Your task to perform on an android device: Open calendar and show me the second week of next month Image 0: 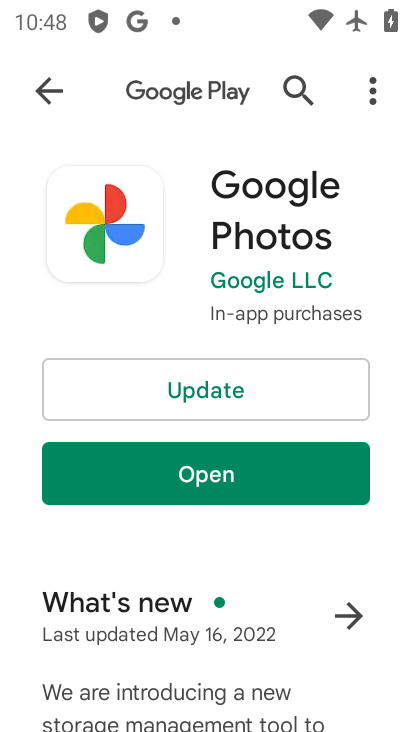
Step 0: press home button
Your task to perform on an android device: Open calendar and show me the second week of next month Image 1: 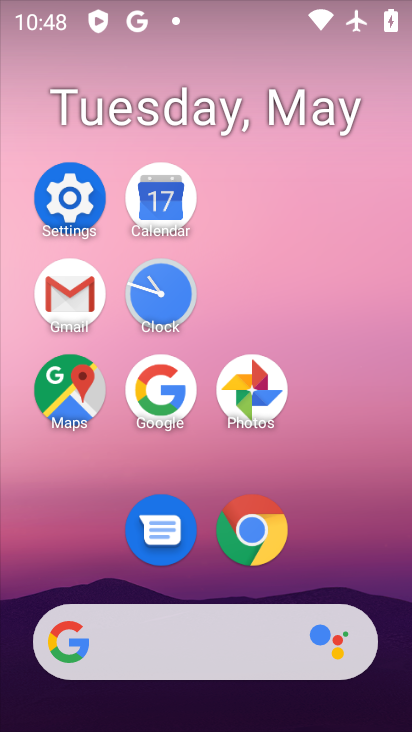
Step 1: click (148, 208)
Your task to perform on an android device: Open calendar and show me the second week of next month Image 2: 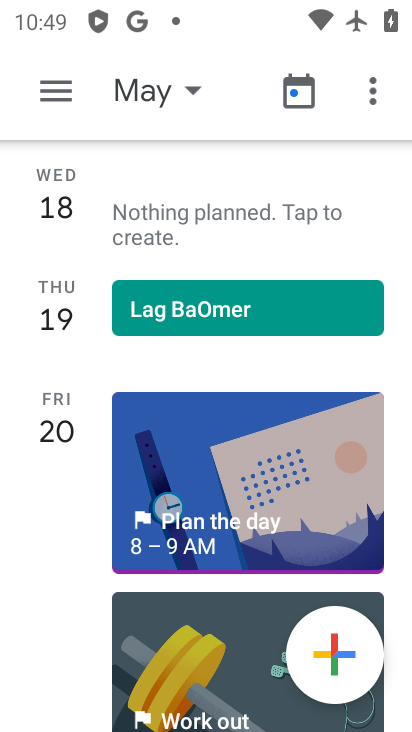
Step 2: click (156, 94)
Your task to perform on an android device: Open calendar and show me the second week of next month Image 3: 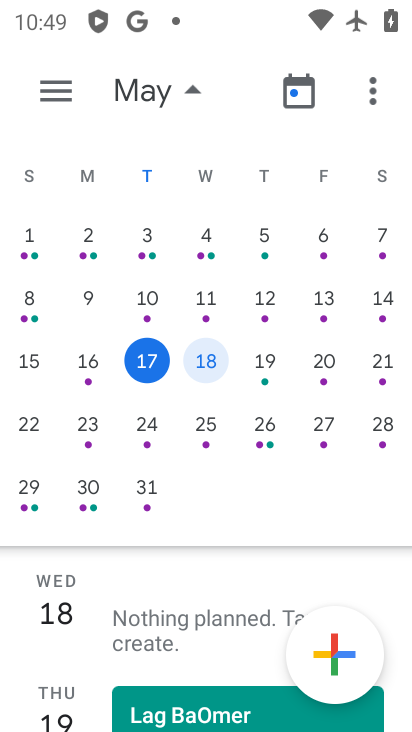
Step 3: drag from (397, 330) to (0, 277)
Your task to perform on an android device: Open calendar and show me the second week of next month Image 4: 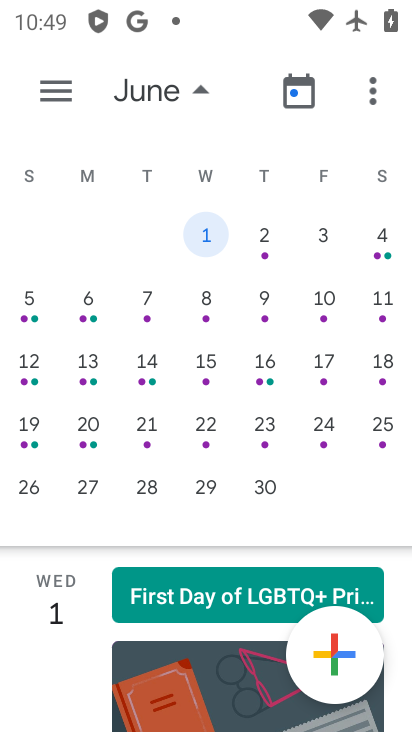
Step 4: click (75, 99)
Your task to perform on an android device: Open calendar and show me the second week of next month Image 5: 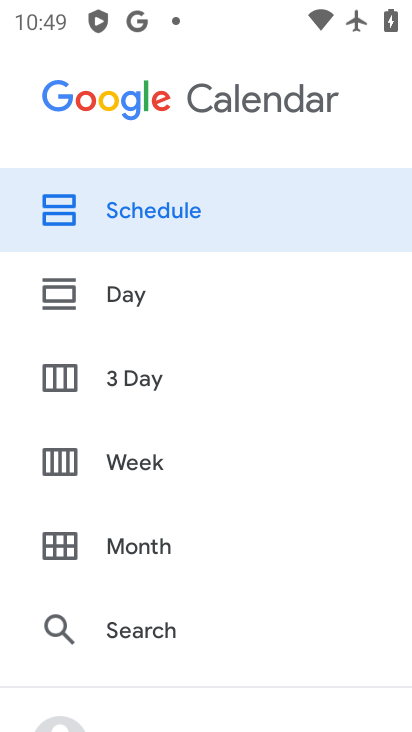
Step 5: click (142, 439)
Your task to perform on an android device: Open calendar and show me the second week of next month Image 6: 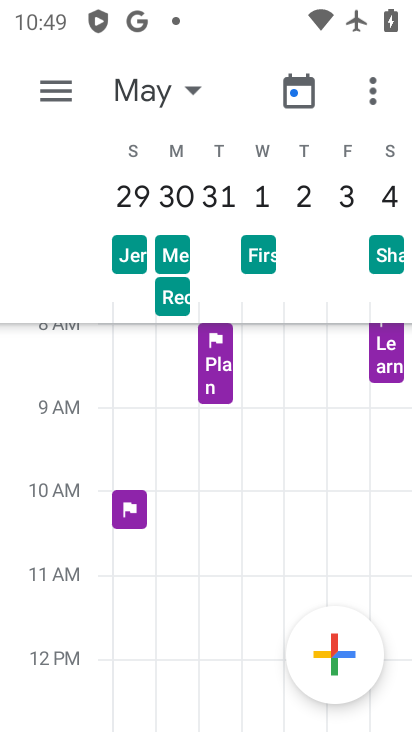
Step 6: task complete